Your task to perform on an android device: Open internet settings Image 0: 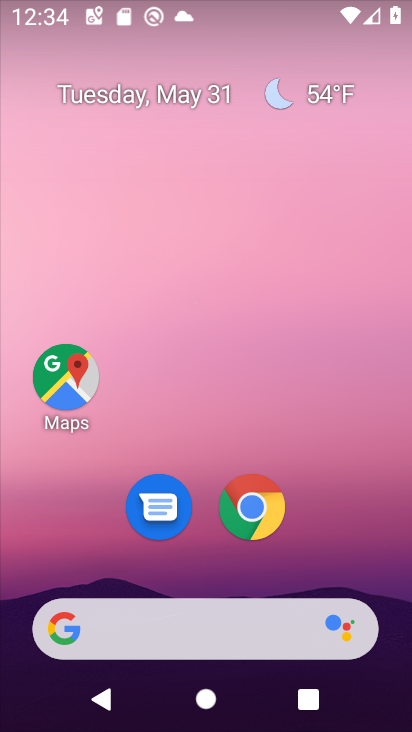
Step 0: drag from (239, 700) to (229, 248)
Your task to perform on an android device: Open internet settings Image 1: 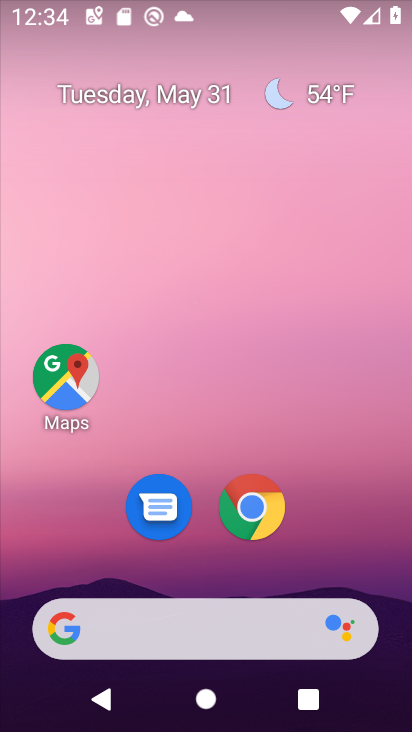
Step 1: drag from (253, 678) to (211, 268)
Your task to perform on an android device: Open internet settings Image 2: 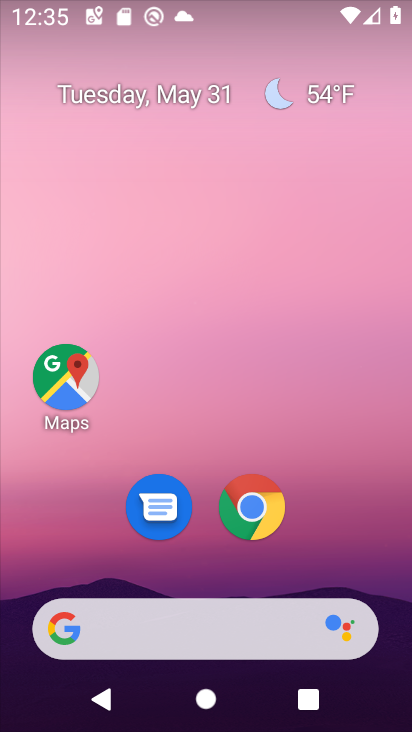
Step 2: drag from (284, 691) to (272, 187)
Your task to perform on an android device: Open internet settings Image 3: 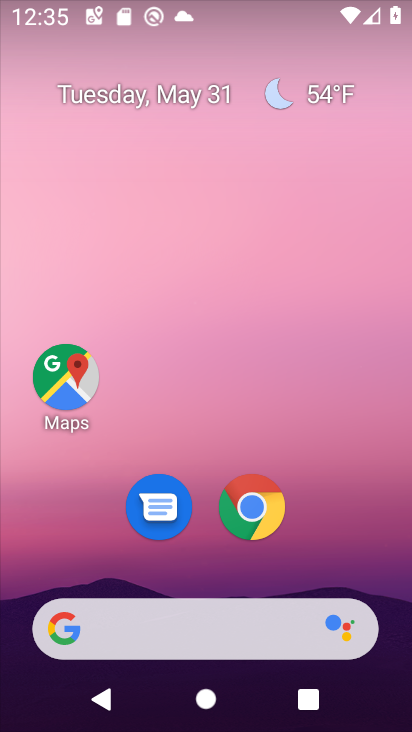
Step 3: drag from (260, 705) to (167, 154)
Your task to perform on an android device: Open internet settings Image 4: 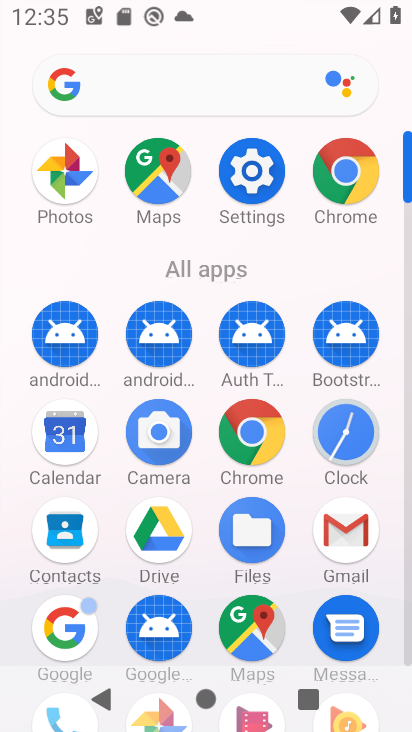
Step 4: click (237, 176)
Your task to perform on an android device: Open internet settings Image 5: 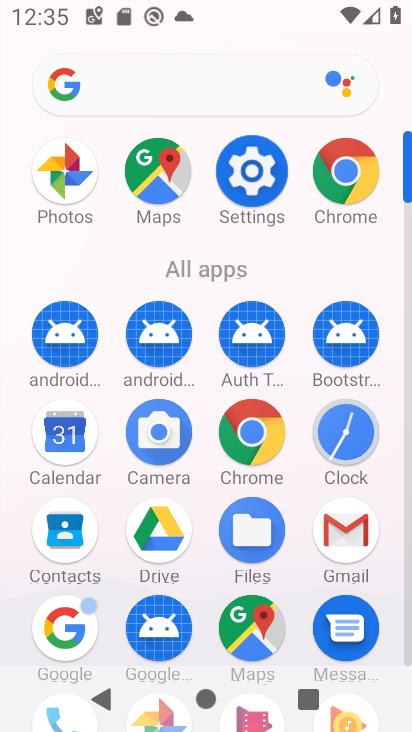
Step 5: click (239, 176)
Your task to perform on an android device: Open internet settings Image 6: 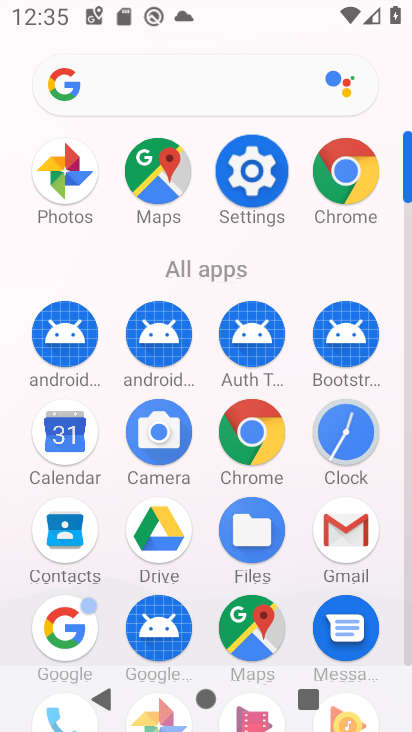
Step 6: click (240, 177)
Your task to perform on an android device: Open internet settings Image 7: 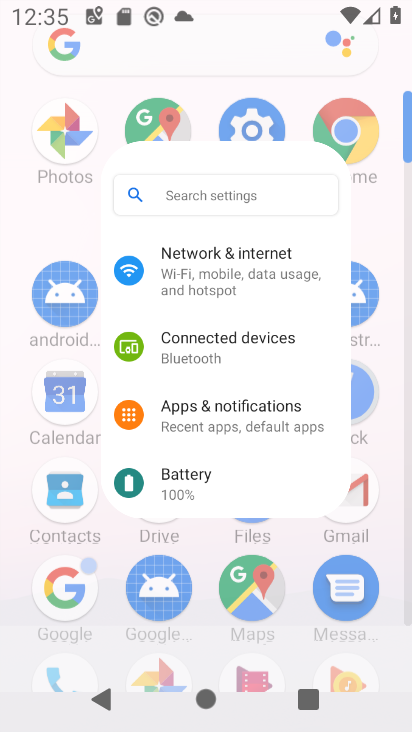
Step 7: click (239, 178)
Your task to perform on an android device: Open internet settings Image 8: 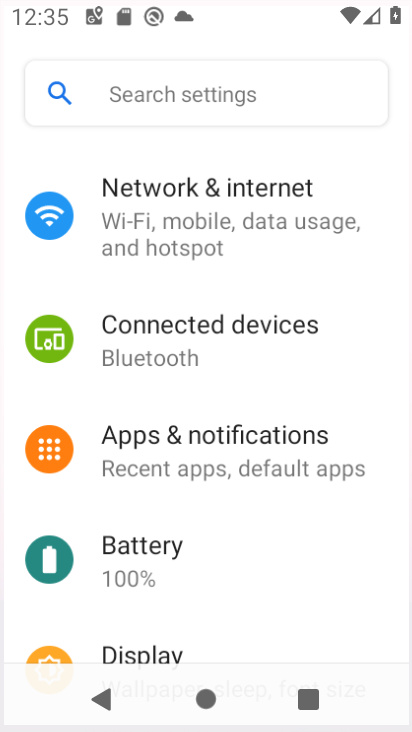
Step 8: click (239, 178)
Your task to perform on an android device: Open internet settings Image 9: 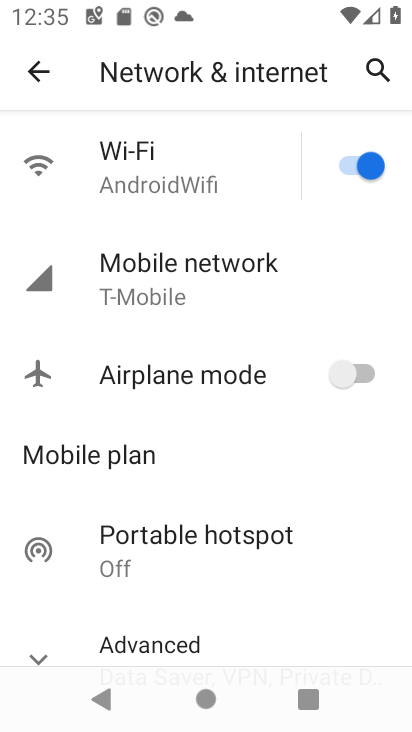
Step 9: task complete